Your task to perform on an android device: turn on sleep mode Image 0: 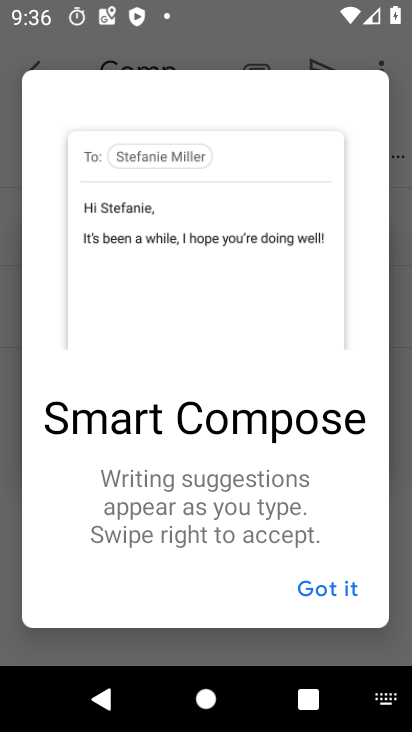
Step 0: press home button
Your task to perform on an android device: turn on sleep mode Image 1: 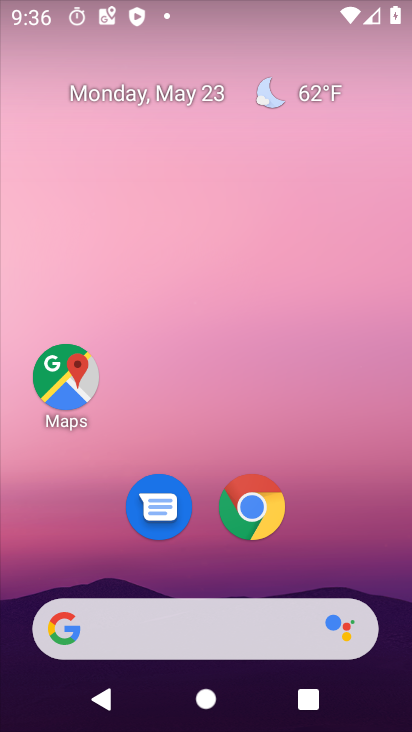
Step 1: drag from (325, 546) to (223, 63)
Your task to perform on an android device: turn on sleep mode Image 2: 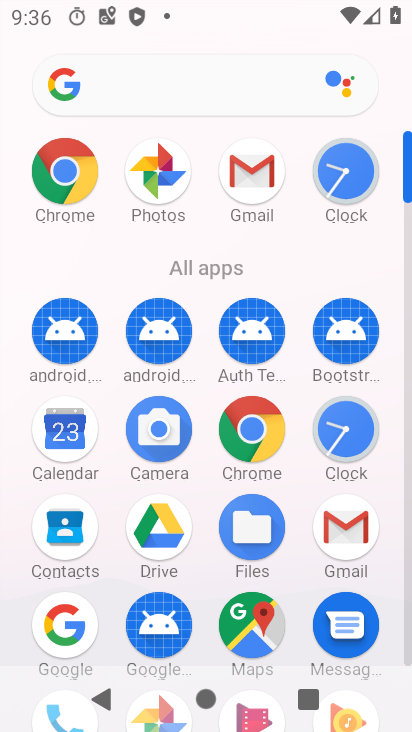
Step 2: drag from (110, 578) to (126, 413)
Your task to perform on an android device: turn on sleep mode Image 3: 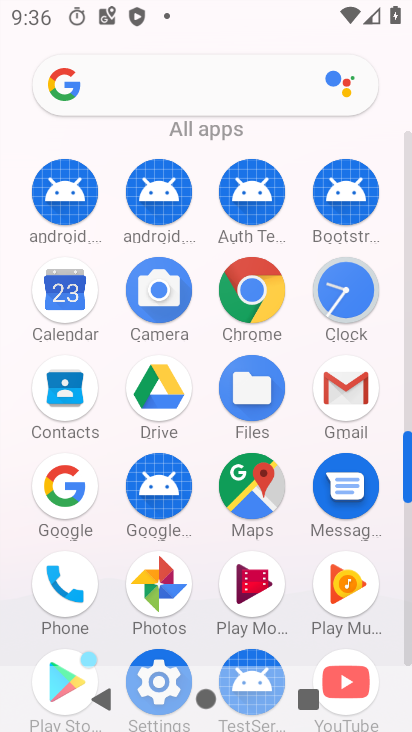
Step 3: drag from (110, 491) to (110, 343)
Your task to perform on an android device: turn on sleep mode Image 4: 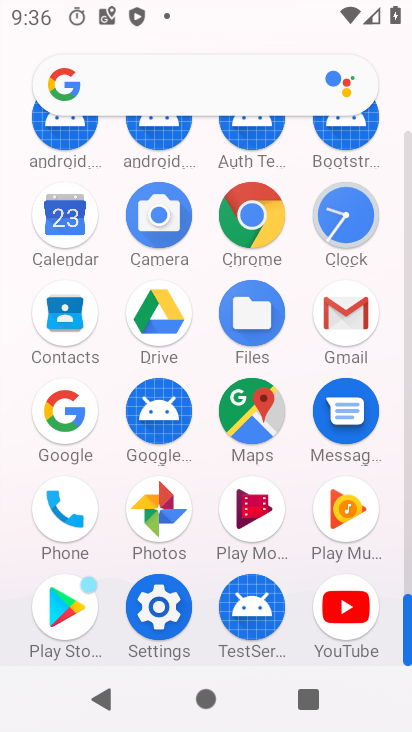
Step 4: click (160, 604)
Your task to perform on an android device: turn on sleep mode Image 5: 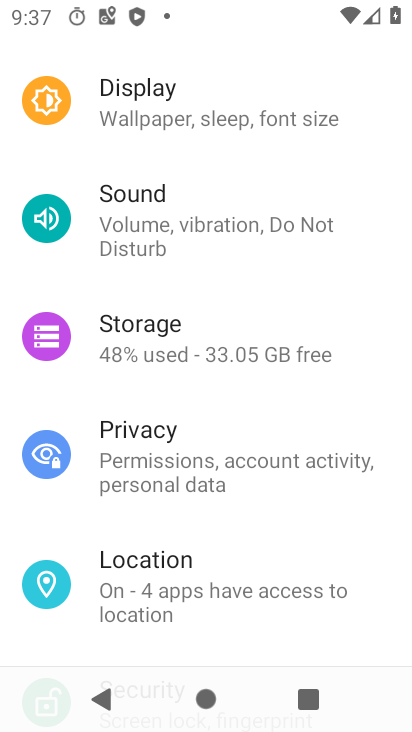
Step 5: drag from (203, 288) to (224, 363)
Your task to perform on an android device: turn on sleep mode Image 6: 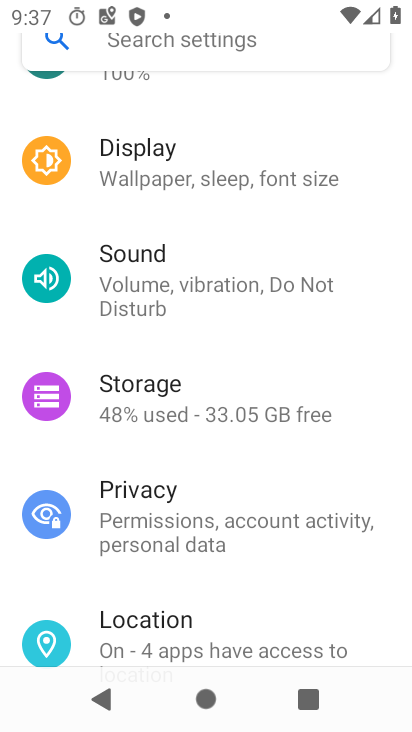
Step 6: drag from (238, 254) to (258, 379)
Your task to perform on an android device: turn on sleep mode Image 7: 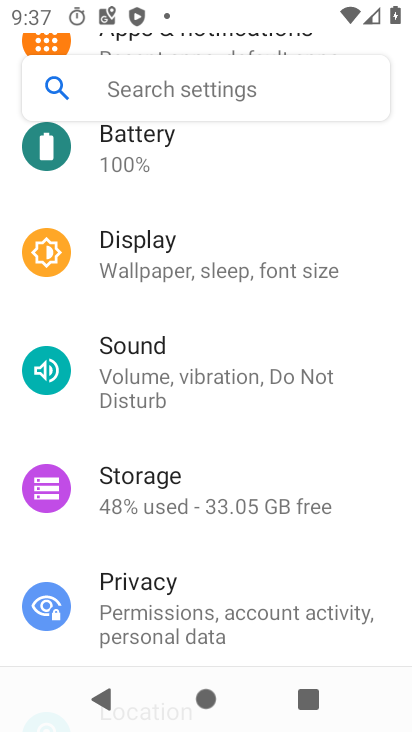
Step 7: click (218, 280)
Your task to perform on an android device: turn on sleep mode Image 8: 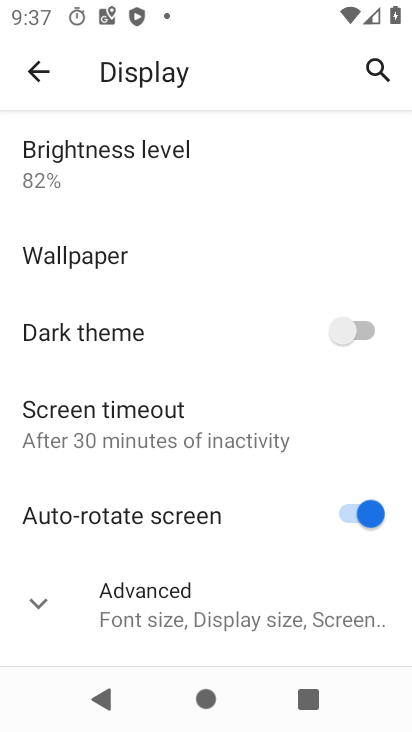
Step 8: click (198, 436)
Your task to perform on an android device: turn on sleep mode Image 9: 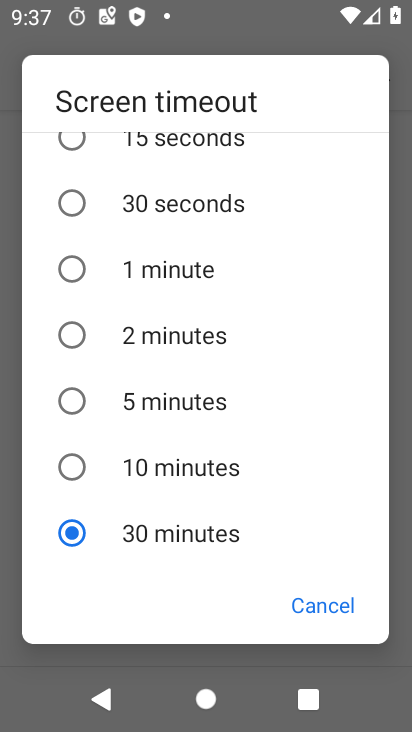
Step 9: click (77, 406)
Your task to perform on an android device: turn on sleep mode Image 10: 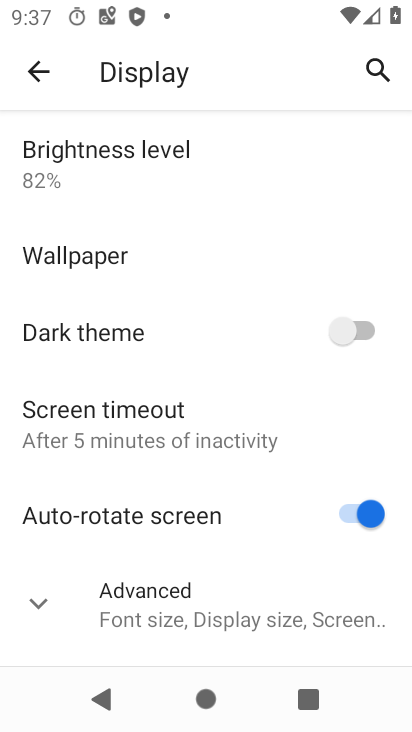
Step 10: click (197, 617)
Your task to perform on an android device: turn on sleep mode Image 11: 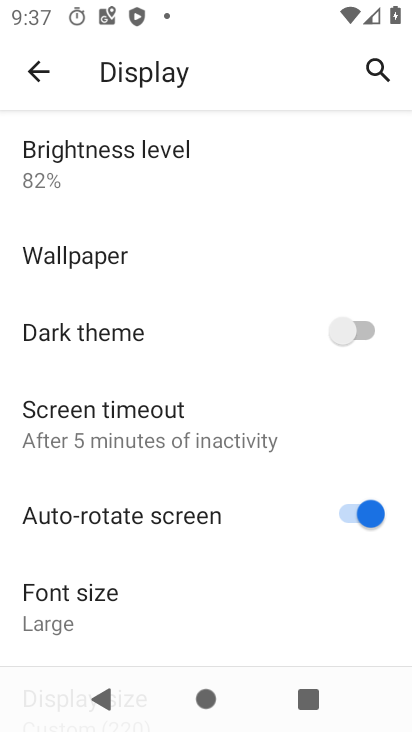
Step 11: task complete